Your task to perform on an android device: see sites visited before in the chrome app Image 0: 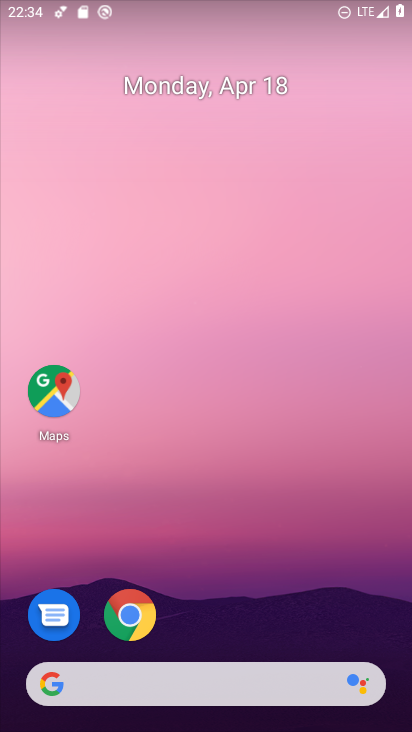
Step 0: click (133, 609)
Your task to perform on an android device: see sites visited before in the chrome app Image 1: 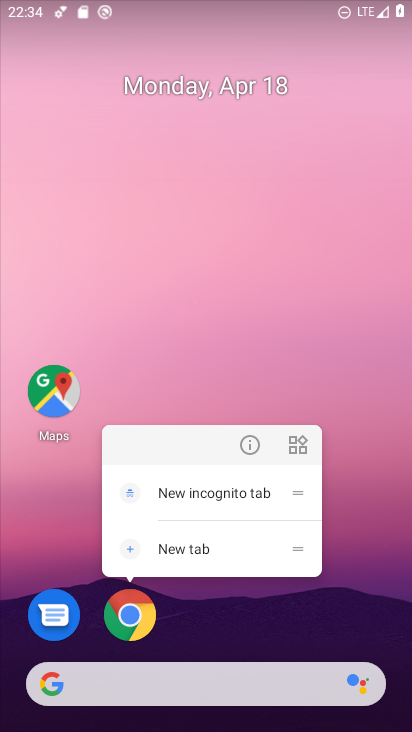
Step 1: click (125, 614)
Your task to perform on an android device: see sites visited before in the chrome app Image 2: 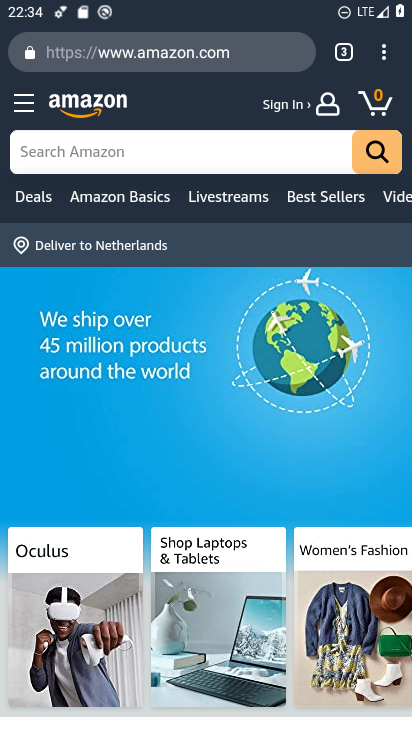
Step 2: click (389, 53)
Your task to perform on an android device: see sites visited before in the chrome app Image 3: 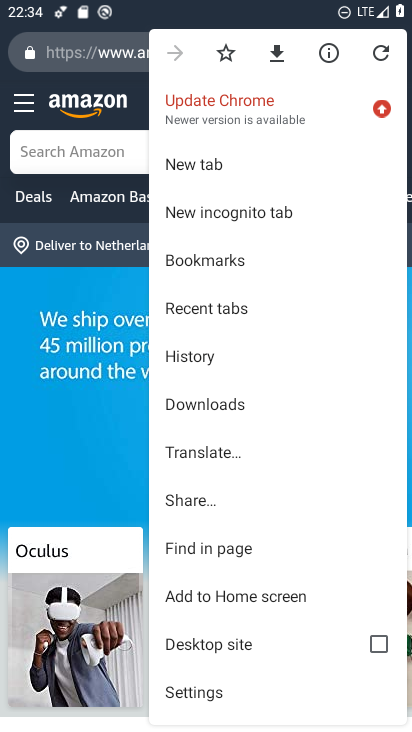
Step 3: click (202, 357)
Your task to perform on an android device: see sites visited before in the chrome app Image 4: 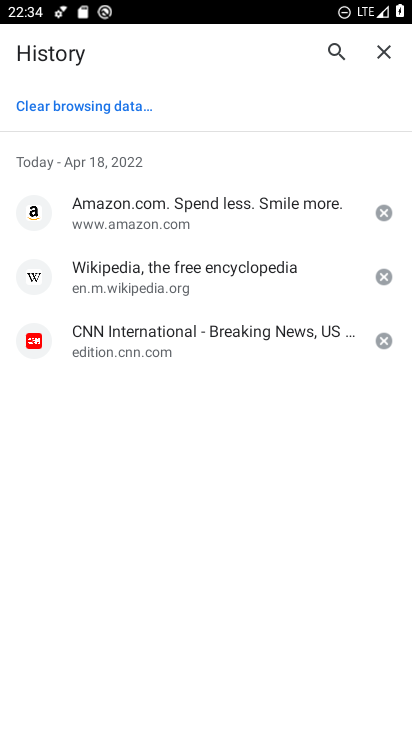
Step 4: task complete